Your task to perform on an android device: delete browsing data in the chrome app Image 0: 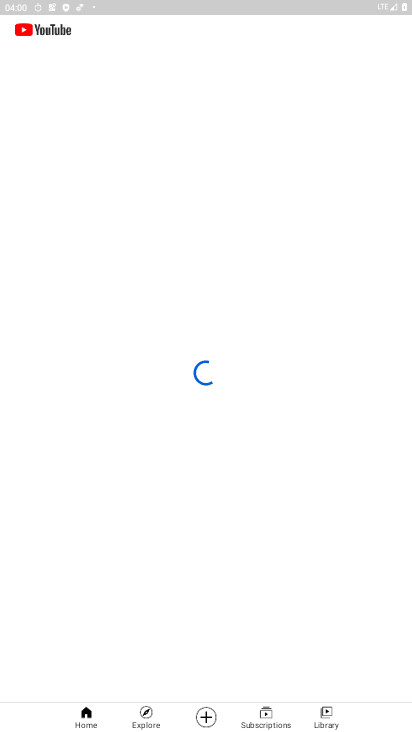
Step 0: press home button
Your task to perform on an android device: delete browsing data in the chrome app Image 1: 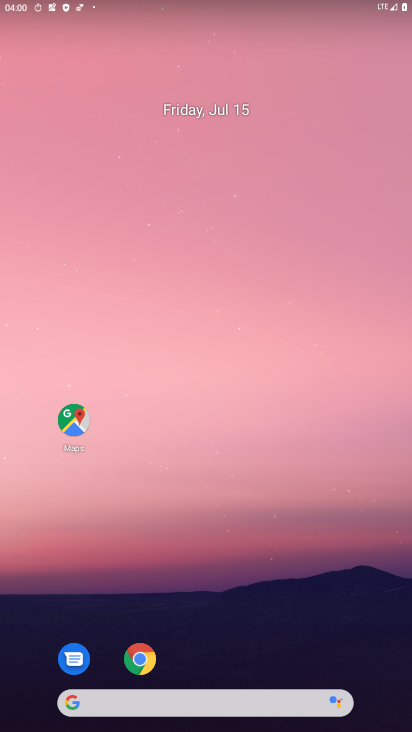
Step 1: click (136, 664)
Your task to perform on an android device: delete browsing data in the chrome app Image 2: 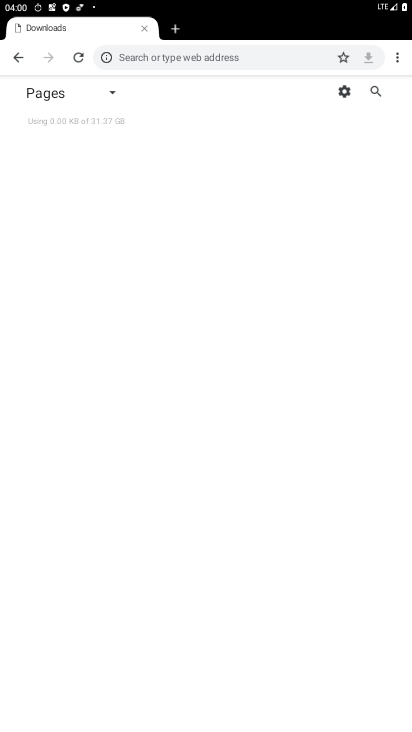
Step 2: click (394, 56)
Your task to perform on an android device: delete browsing data in the chrome app Image 3: 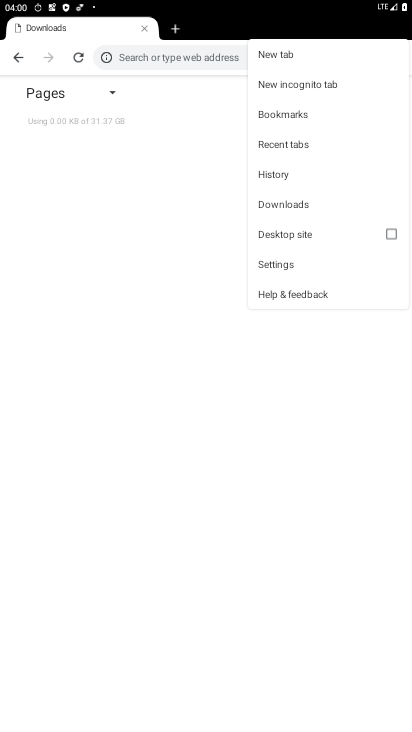
Step 3: click (279, 172)
Your task to perform on an android device: delete browsing data in the chrome app Image 4: 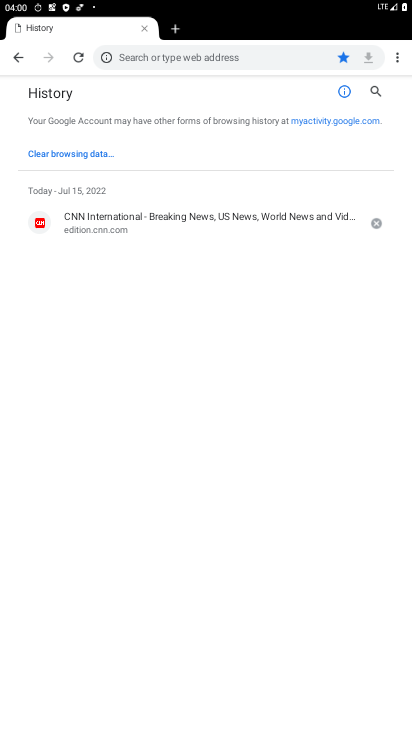
Step 4: click (81, 157)
Your task to perform on an android device: delete browsing data in the chrome app Image 5: 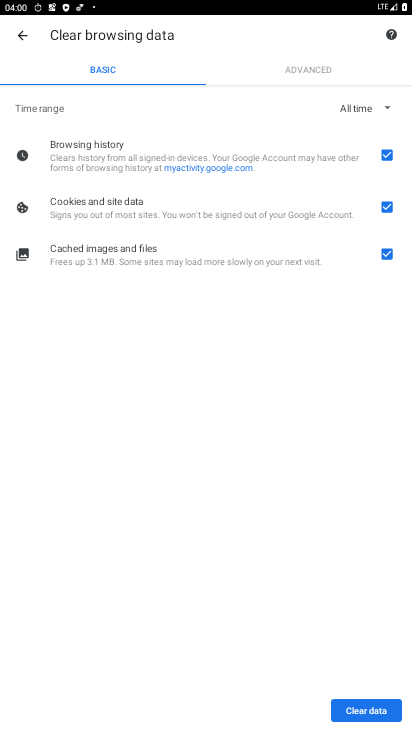
Step 5: click (355, 709)
Your task to perform on an android device: delete browsing data in the chrome app Image 6: 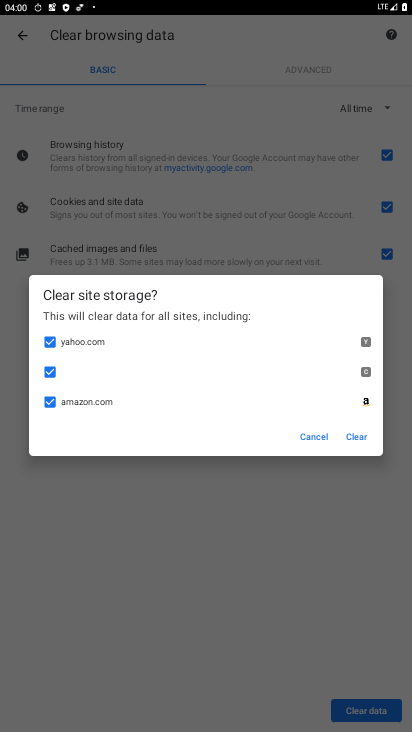
Step 6: click (353, 432)
Your task to perform on an android device: delete browsing data in the chrome app Image 7: 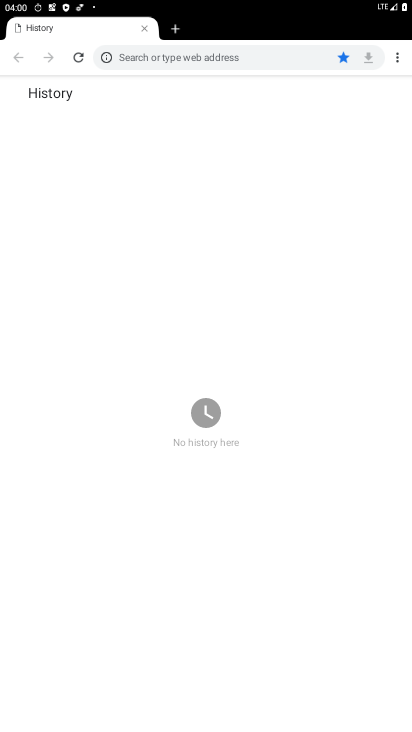
Step 7: task complete